Your task to perform on an android device: Open the web browser Image 0: 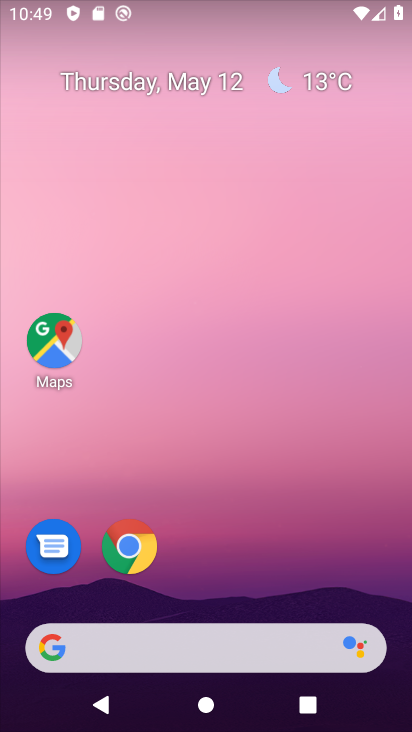
Step 0: drag from (276, 675) to (206, 211)
Your task to perform on an android device: Open the web browser Image 1: 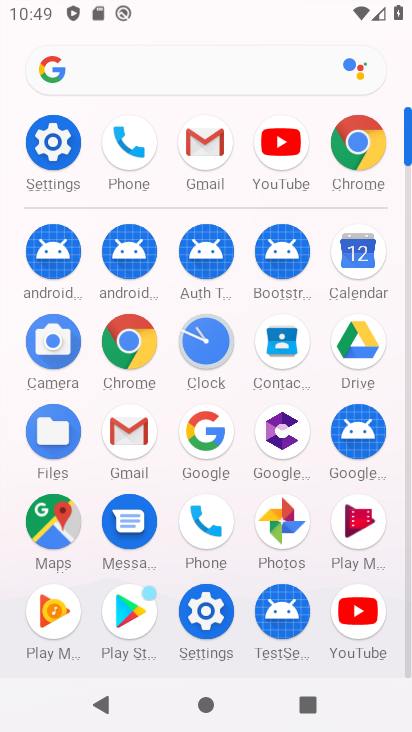
Step 1: click (367, 145)
Your task to perform on an android device: Open the web browser Image 2: 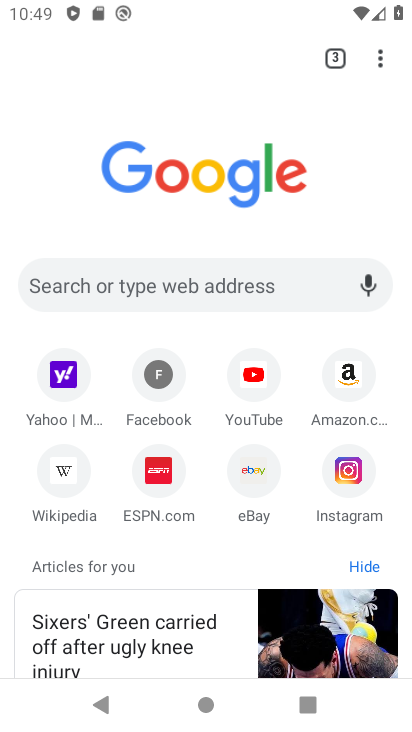
Step 2: click (148, 277)
Your task to perform on an android device: Open the web browser Image 3: 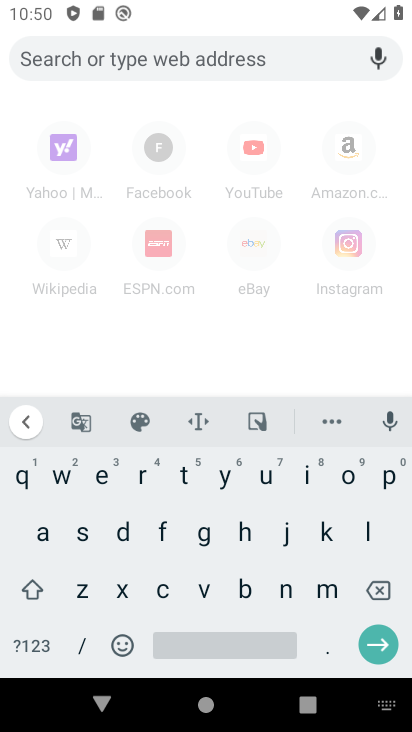
Step 3: task complete